Your task to perform on an android device: snooze an email in the gmail app Image 0: 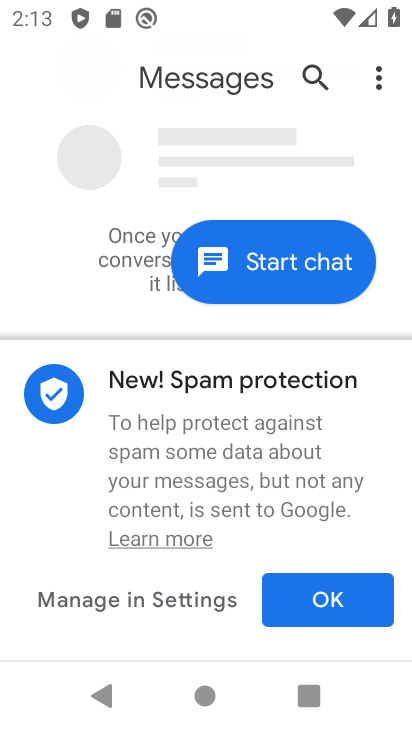
Step 0: press home button
Your task to perform on an android device: snooze an email in the gmail app Image 1: 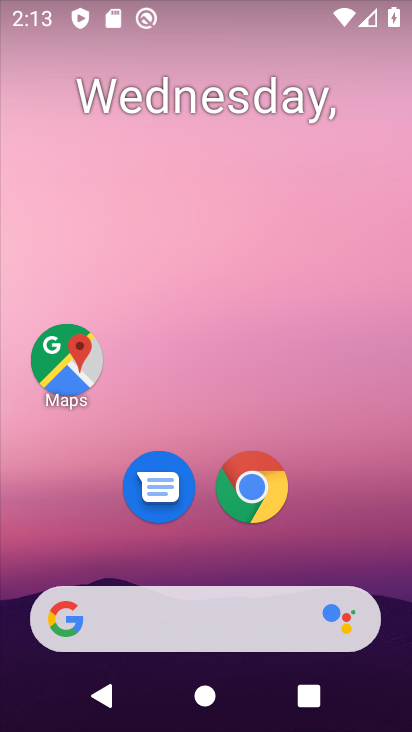
Step 1: drag from (243, 696) to (241, 142)
Your task to perform on an android device: snooze an email in the gmail app Image 2: 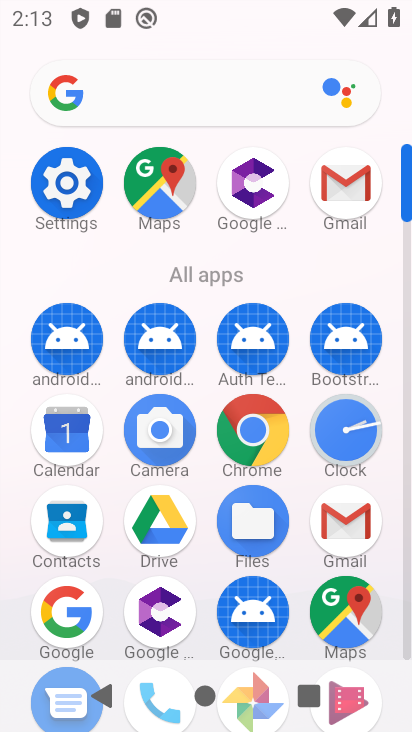
Step 2: click (333, 187)
Your task to perform on an android device: snooze an email in the gmail app Image 3: 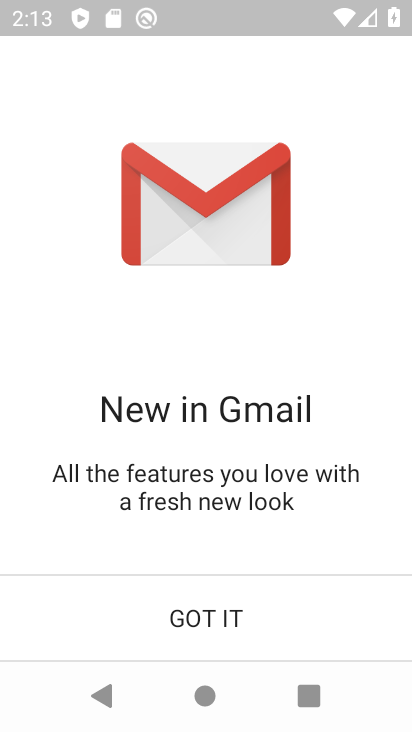
Step 3: click (270, 602)
Your task to perform on an android device: snooze an email in the gmail app Image 4: 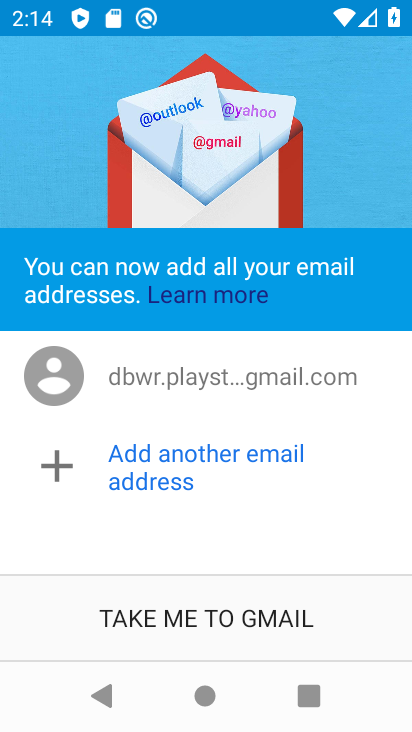
Step 4: click (266, 608)
Your task to perform on an android device: snooze an email in the gmail app Image 5: 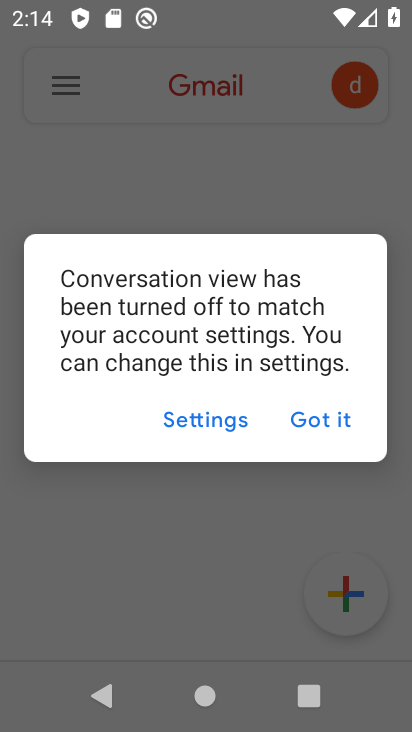
Step 5: click (314, 413)
Your task to perform on an android device: snooze an email in the gmail app Image 6: 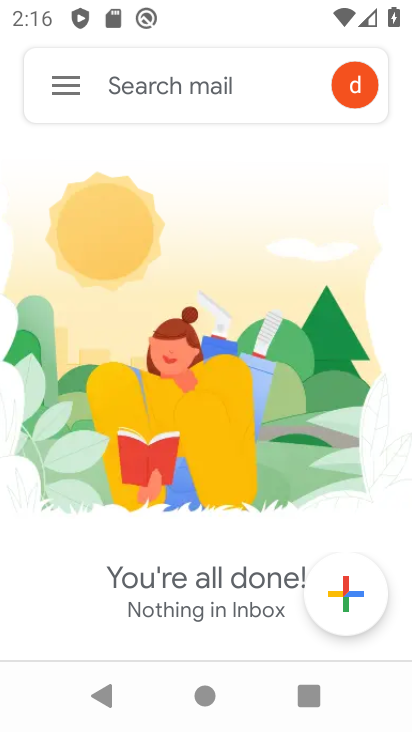
Step 6: task complete